Your task to perform on an android device: toggle javascript in the chrome app Image 0: 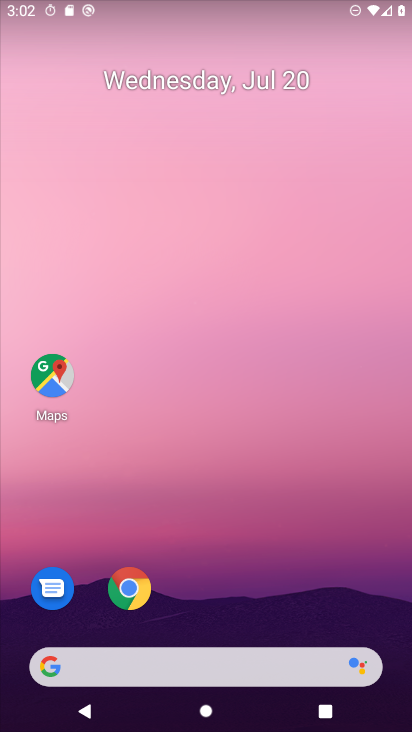
Step 0: click (177, 606)
Your task to perform on an android device: toggle javascript in the chrome app Image 1: 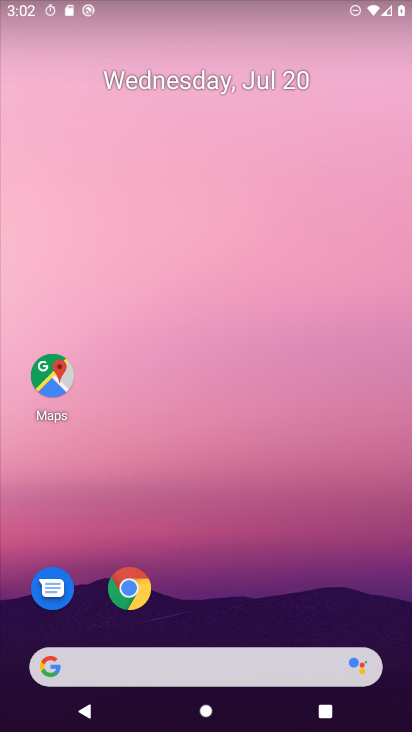
Step 1: click (143, 605)
Your task to perform on an android device: toggle javascript in the chrome app Image 2: 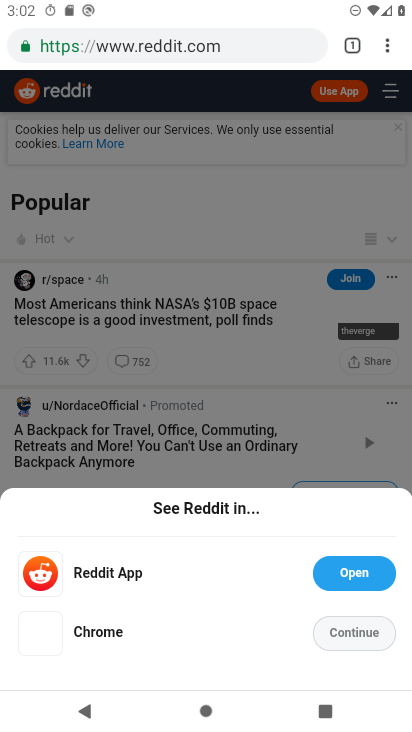
Step 2: click (388, 42)
Your task to perform on an android device: toggle javascript in the chrome app Image 3: 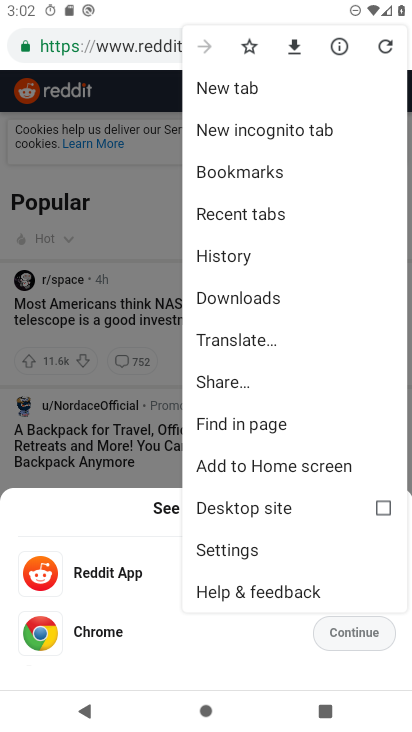
Step 3: click (215, 546)
Your task to perform on an android device: toggle javascript in the chrome app Image 4: 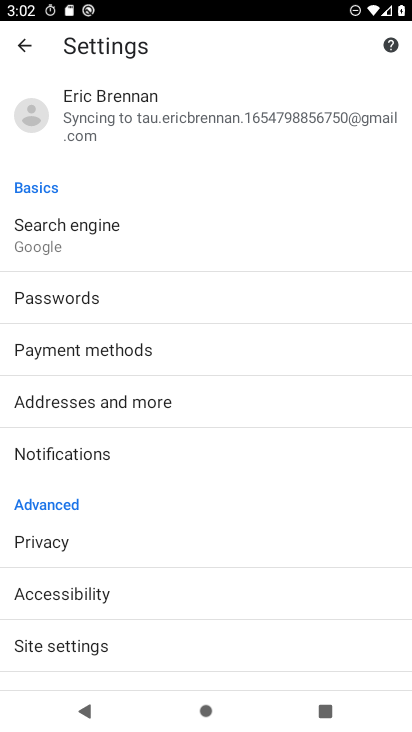
Step 4: click (102, 643)
Your task to perform on an android device: toggle javascript in the chrome app Image 5: 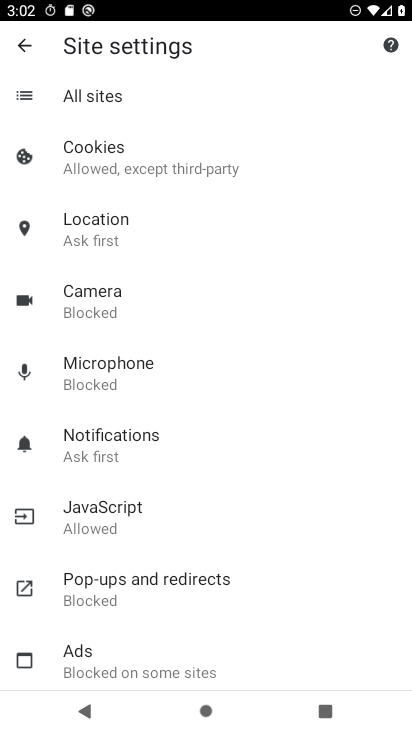
Step 5: click (117, 519)
Your task to perform on an android device: toggle javascript in the chrome app Image 6: 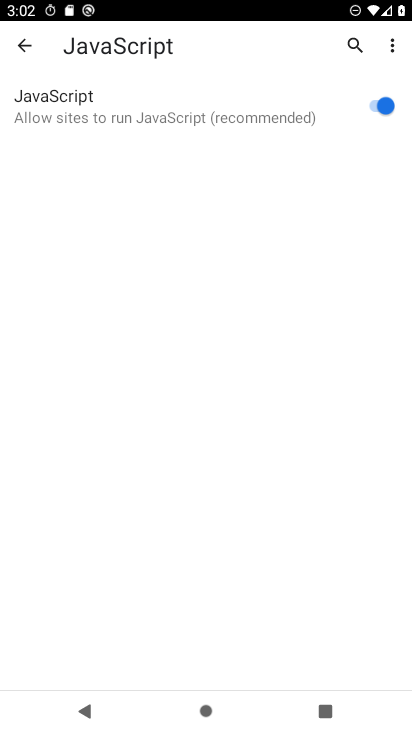
Step 6: click (370, 110)
Your task to perform on an android device: toggle javascript in the chrome app Image 7: 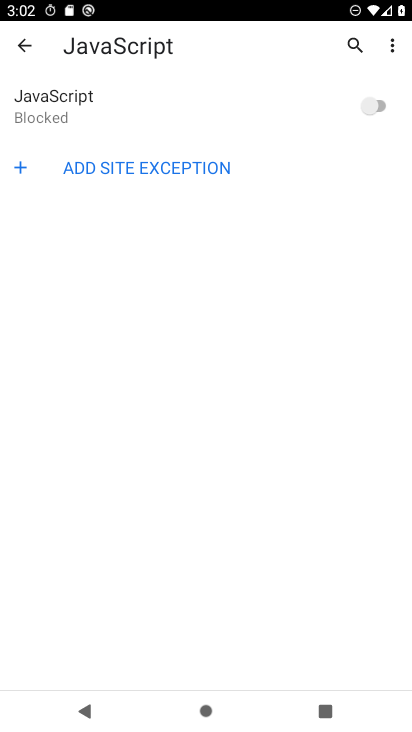
Step 7: task complete